Your task to perform on an android device: add a contact in the contacts app Image 0: 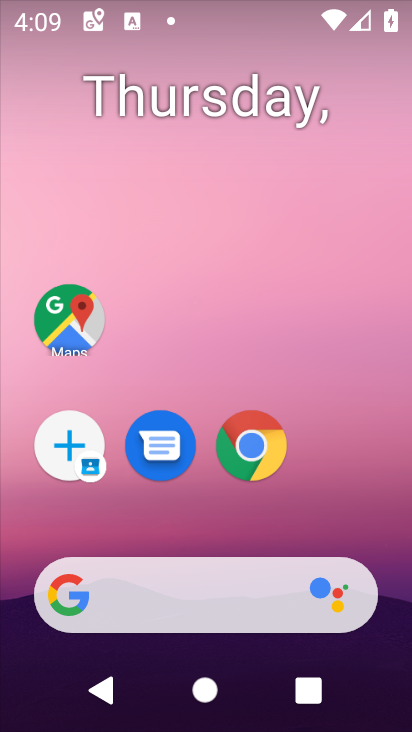
Step 0: drag from (306, 472) to (286, 130)
Your task to perform on an android device: add a contact in the contacts app Image 1: 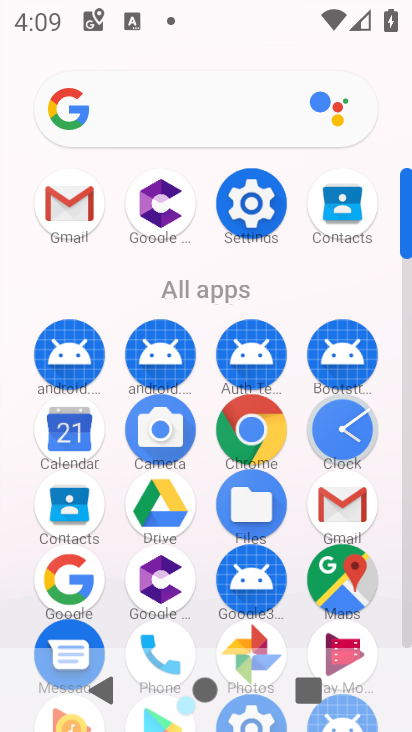
Step 1: click (73, 515)
Your task to perform on an android device: add a contact in the contacts app Image 2: 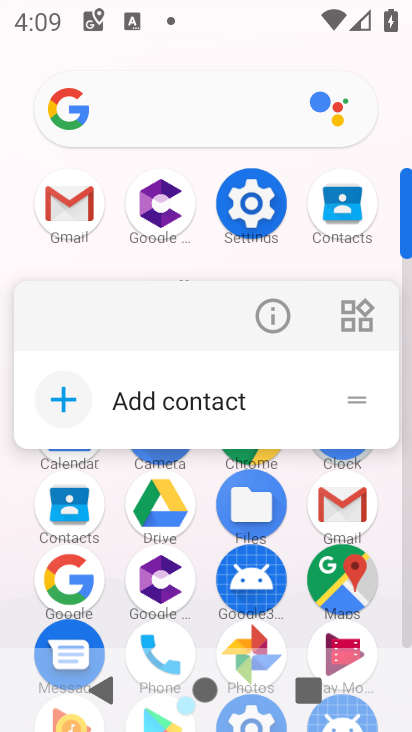
Step 2: click (73, 512)
Your task to perform on an android device: add a contact in the contacts app Image 3: 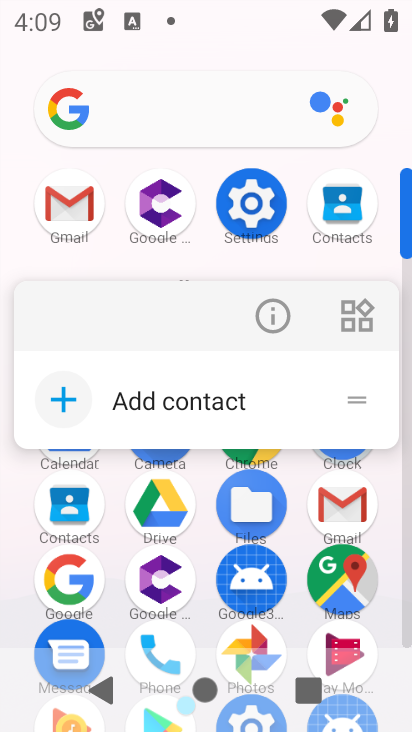
Step 3: click (73, 511)
Your task to perform on an android device: add a contact in the contacts app Image 4: 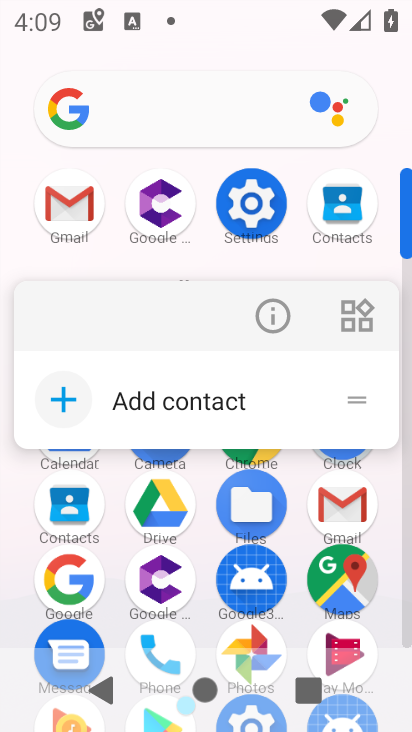
Step 4: click (73, 511)
Your task to perform on an android device: add a contact in the contacts app Image 5: 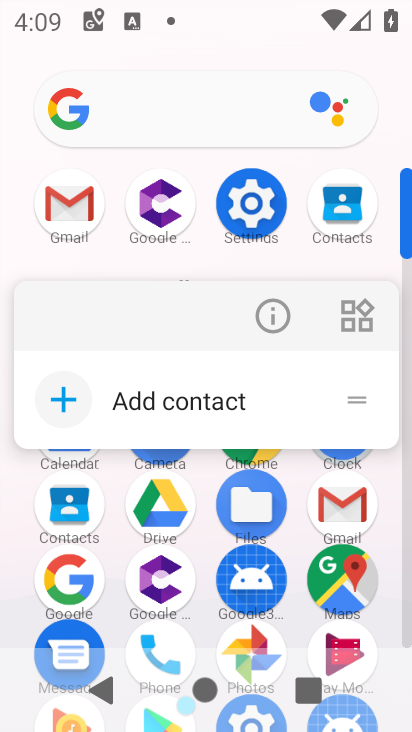
Step 5: click (73, 511)
Your task to perform on an android device: add a contact in the contacts app Image 6: 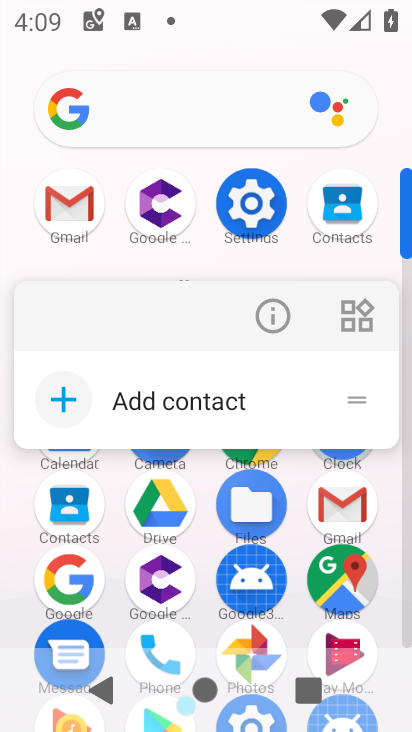
Step 6: click (73, 511)
Your task to perform on an android device: add a contact in the contacts app Image 7: 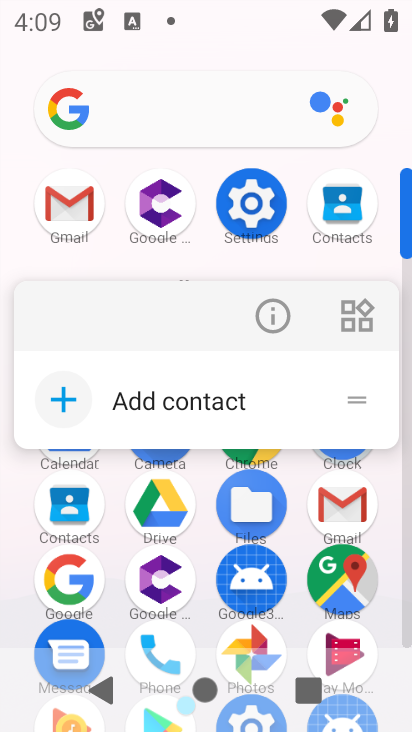
Step 7: click (73, 511)
Your task to perform on an android device: add a contact in the contacts app Image 8: 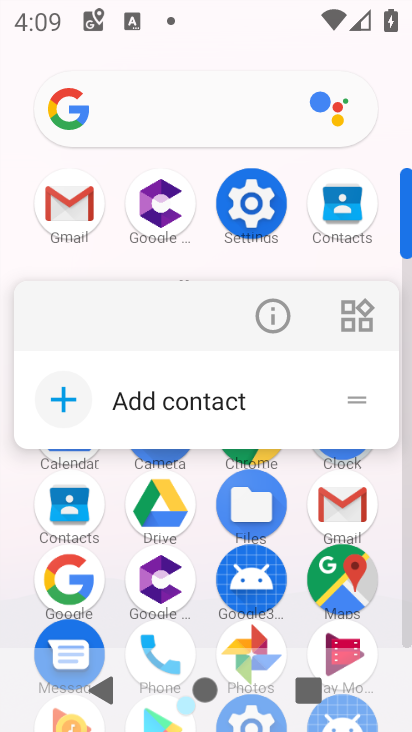
Step 8: click (73, 511)
Your task to perform on an android device: add a contact in the contacts app Image 9: 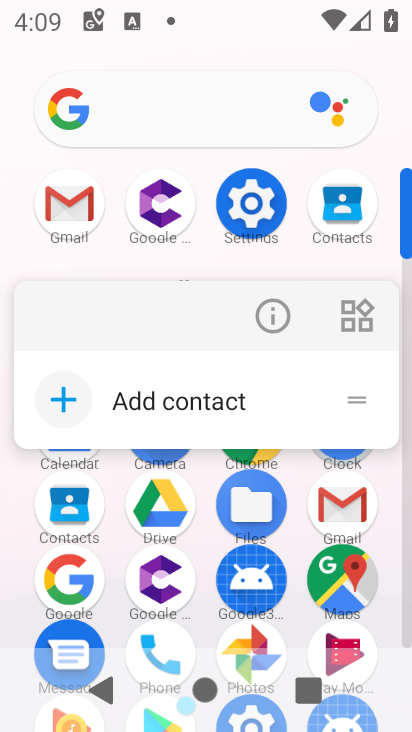
Step 9: click (73, 511)
Your task to perform on an android device: add a contact in the contacts app Image 10: 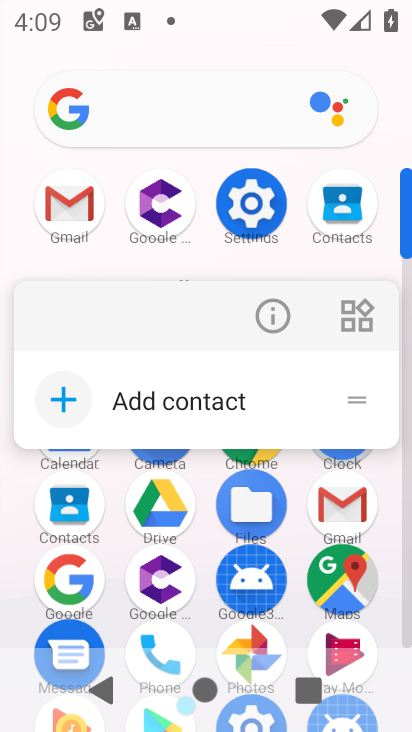
Step 10: click (73, 511)
Your task to perform on an android device: add a contact in the contacts app Image 11: 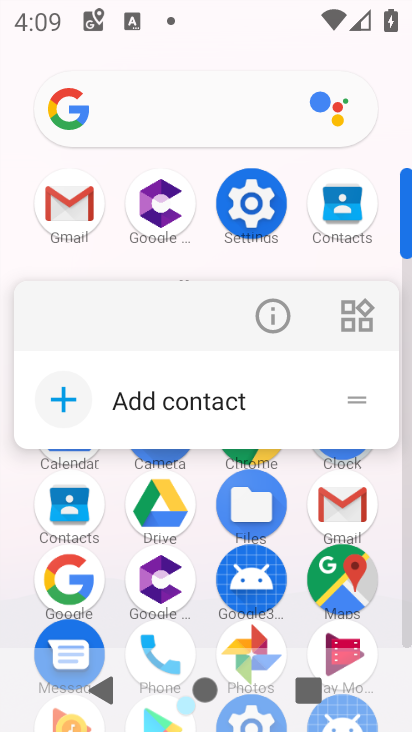
Step 11: click (73, 511)
Your task to perform on an android device: add a contact in the contacts app Image 12: 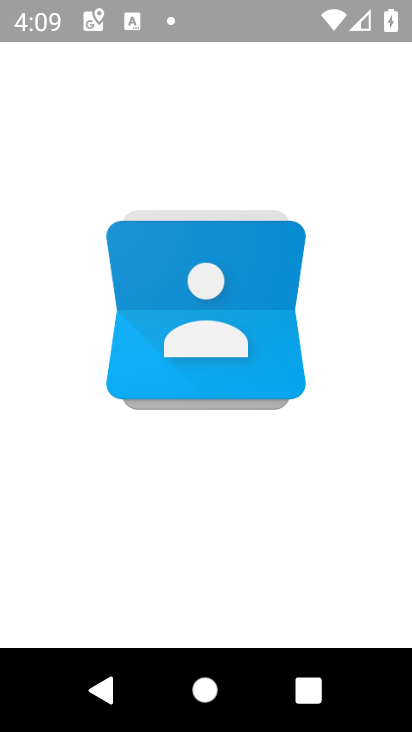
Step 12: click (73, 511)
Your task to perform on an android device: add a contact in the contacts app Image 13: 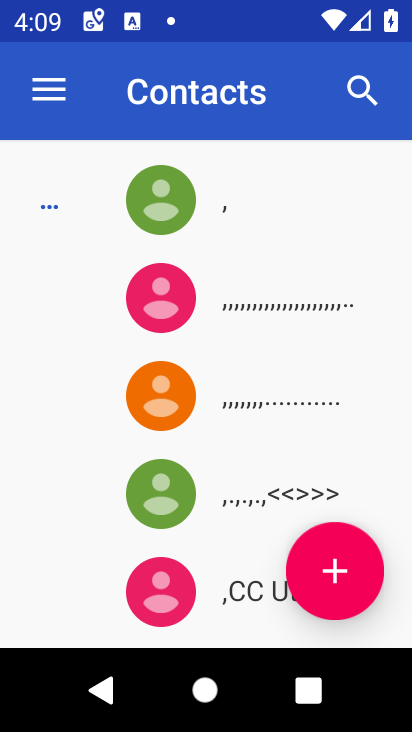
Step 13: click (348, 571)
Your task to perform on an android device: add a contact in the contacts app Image 14: 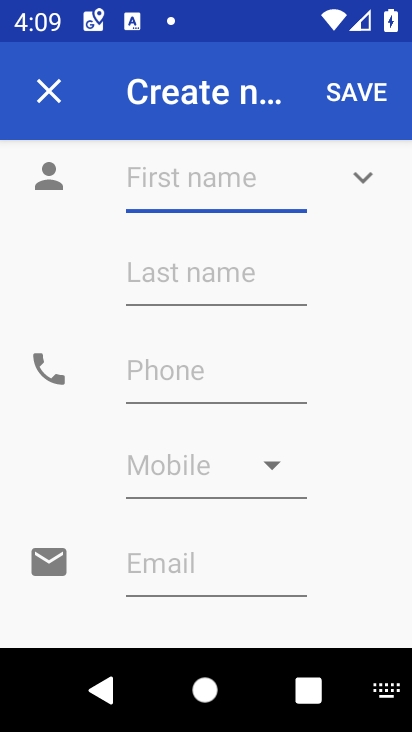
Step 14: type "ramu"
Your task to perform on an android device: add a contact in the contacts app Image 15: 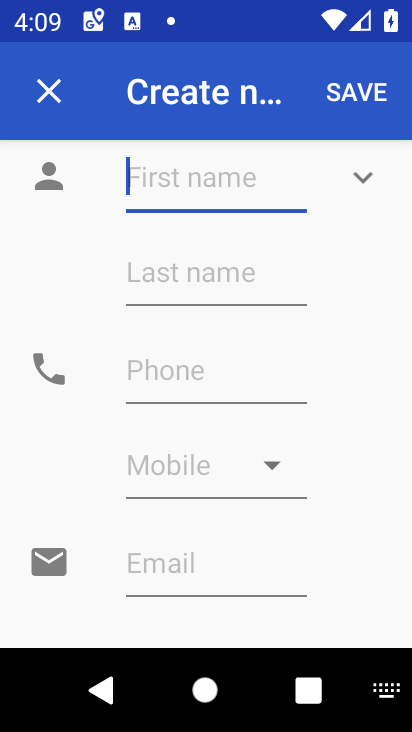
Step 15: click (230, 383)
Your task to perform on an android device: add a contact in the contacts app Image 16: 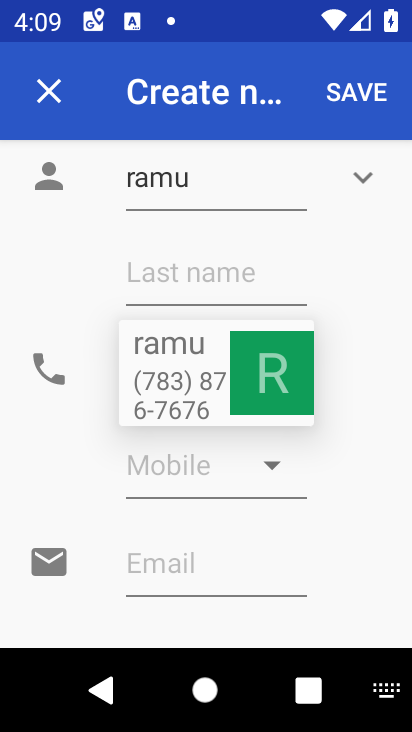
Step 16: type "987654332"
Your task to perform on an android device: add a contact in the contacts app Image 17: 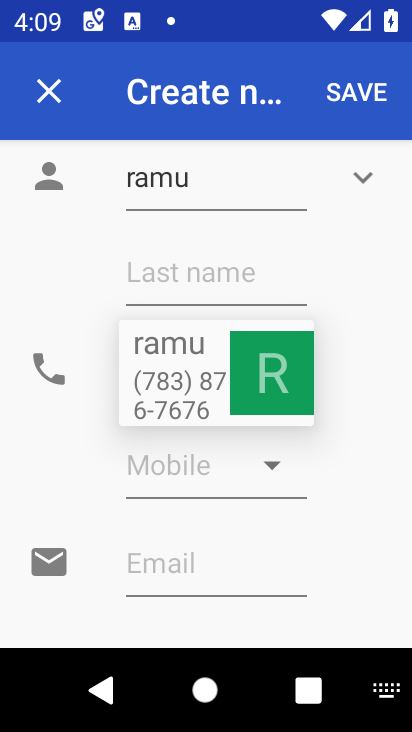
Step 17: click (315, 483)
Your task to perform on an android device: add a contact in the contacts app Image 18: 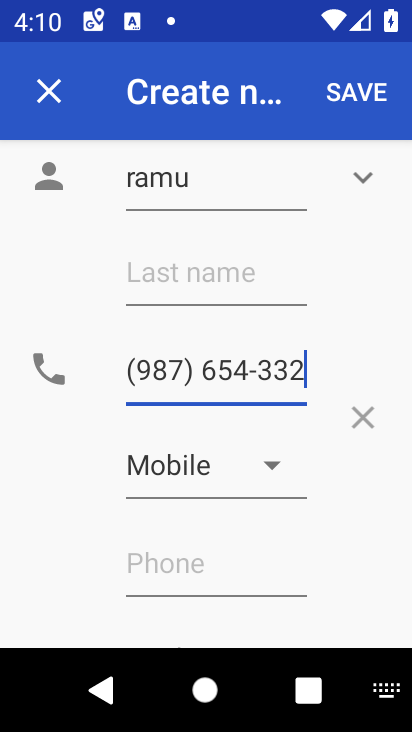
Step 18: click (344, 112)
Your task to perform on an android device: add a contact in the contacts app Image 19: 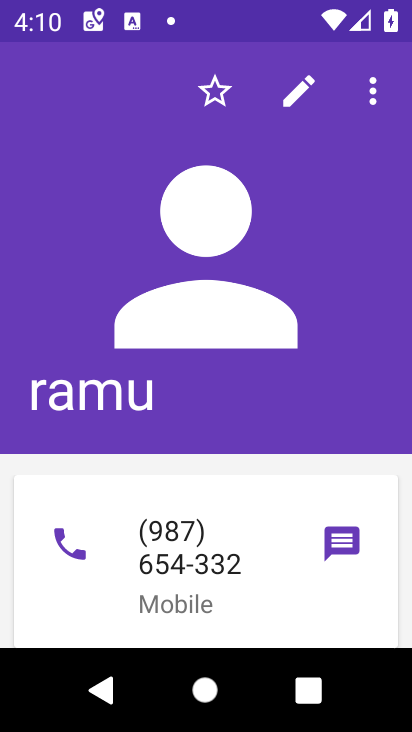
Step 19: task complete